Your task to perform on an android device: Go to location settings Image 0: 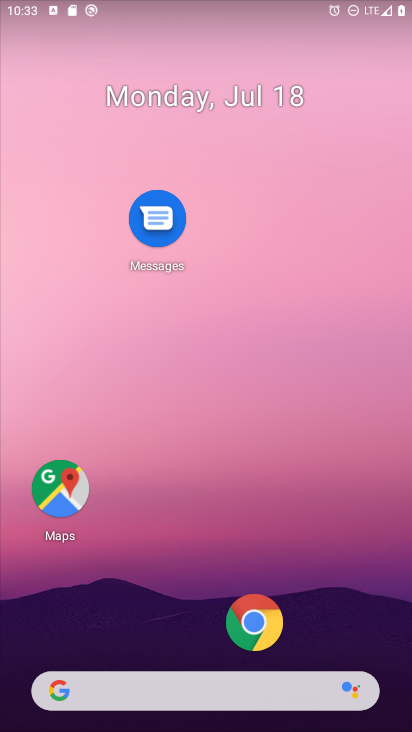
Step 0: drag from (189, 619) to (266, 140)
Your task to perform on an android device: Go to location settings Image 1: 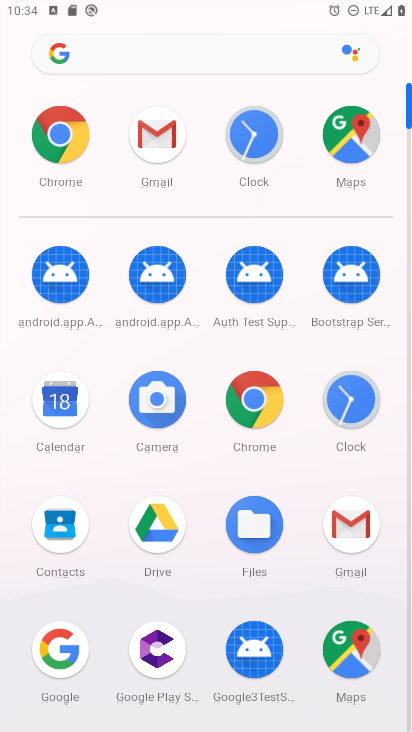
Step 1: drag from (182, 530) to (266, 0)
Your task to perform on an android device: Go to location settings Image 2: 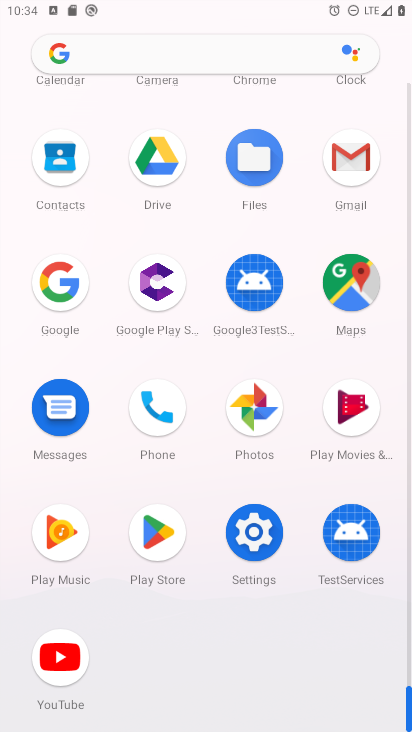
Step 2: click (252, 548)
Your task to perform on an android device: Go to location settings Image 3: 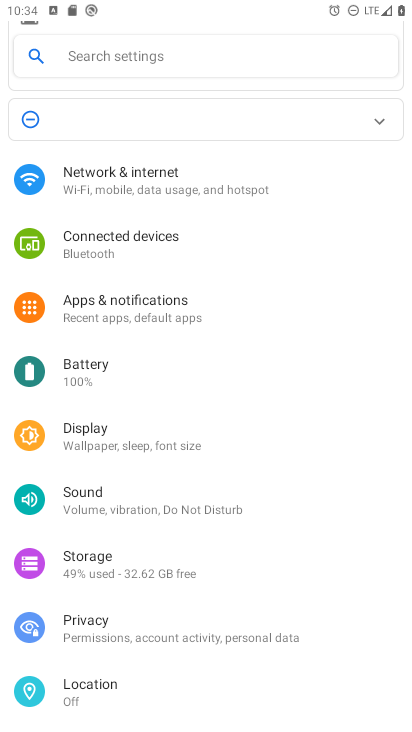
Step 3: drag from (203, 522) to (228, 159)
Your task to perform on an android device: Go to location settings Image 4: 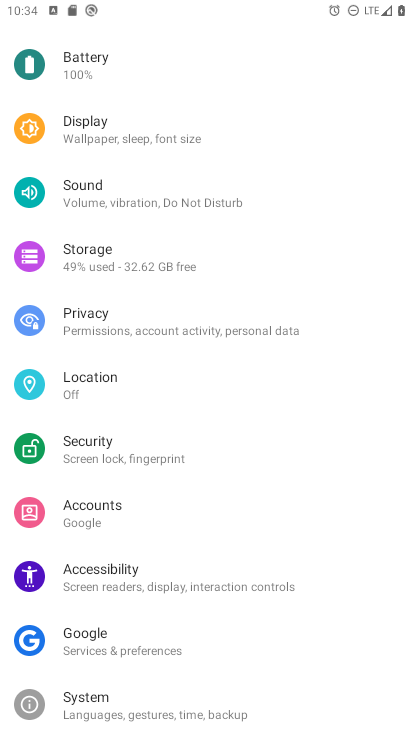
Step 4: click (122, 391)
Your task to perform on an android device: Go to location settings Image 5: 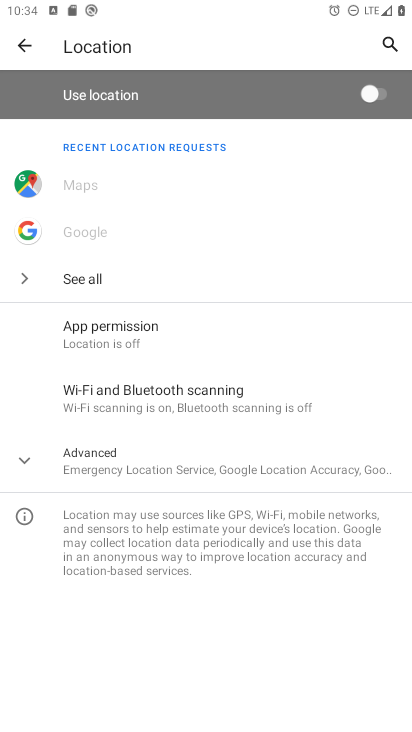
Step 5: task complete